Your task to perform on an android device: Open battery settings Image 0: 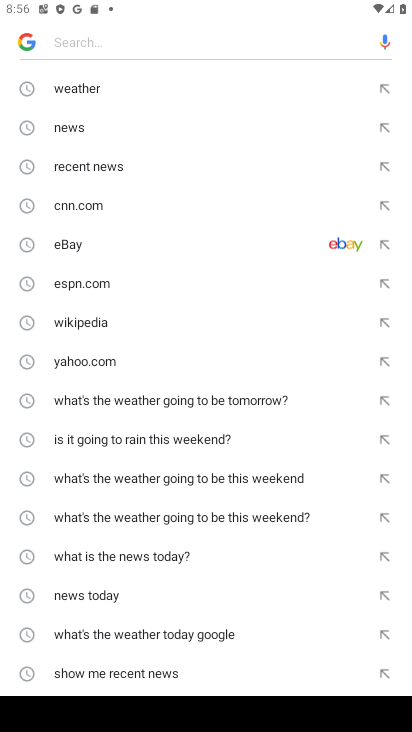
Step 0: press back button
Your task to perform on an android device: Open battery settings Image 1: 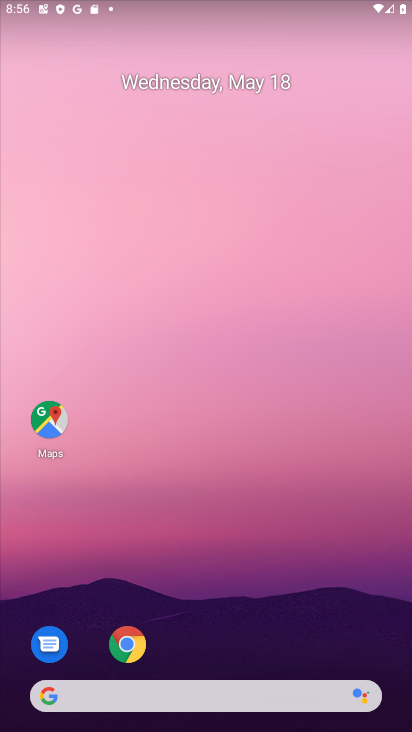
Step 1: drag from (261, 621) to (289, 115)
Your task to perform on an android device: Open battery settings Image 2: 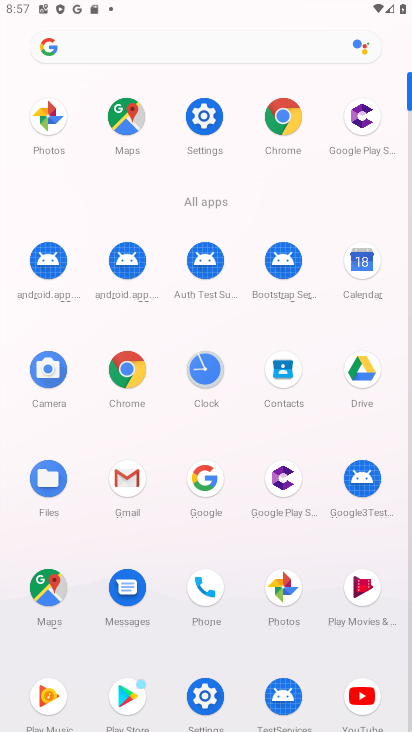
Step 2: click (204, 117)
Your task to perform on an android device: Open battery settings Image 3: 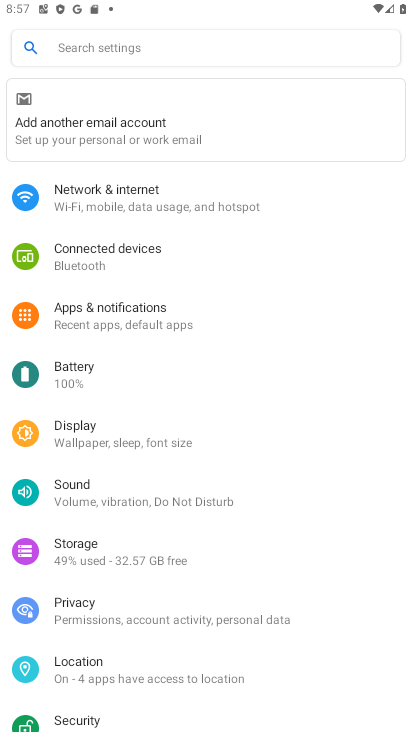
Step 3: click (66, 380)
Your task to perform on an android device: Open battery settings Image 4: 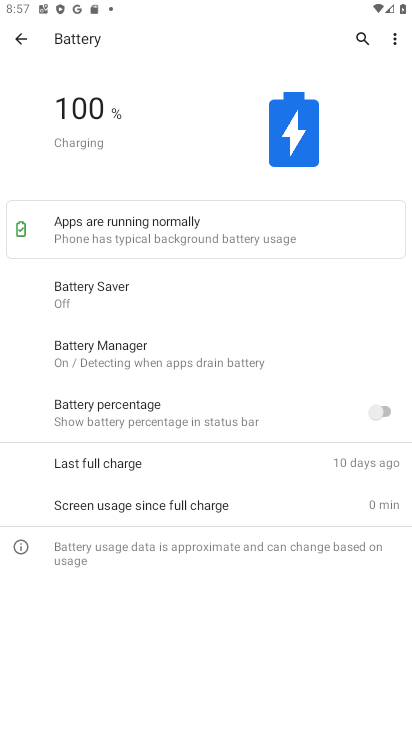
Step 4: task complete